Your task to perform on an android device: Search for sushi restaurants on Maps Image 0: 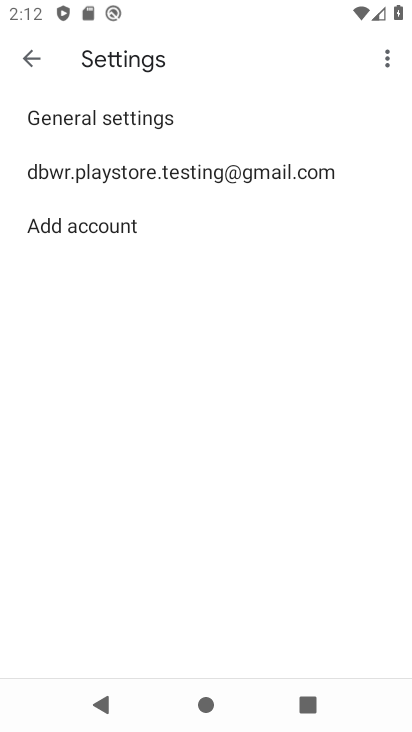
Step 0: press home button
Your task to perform on an android device: Search for sushi restaurants on Maps Image 1: 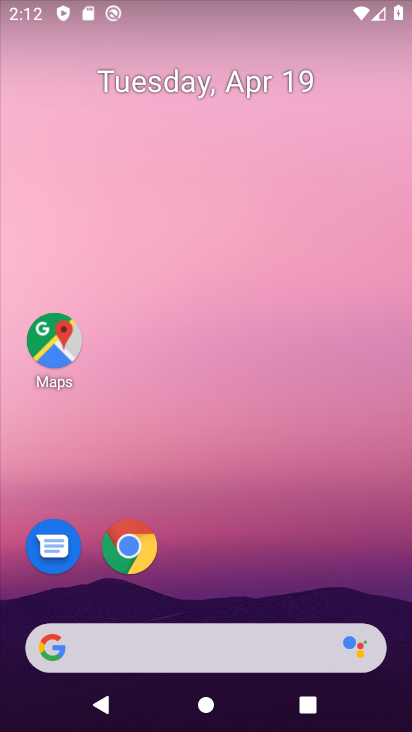
Step 1: click (51, 352)
Your task to perform on an android device: Search for sushi restaurants on Maps Image 2: 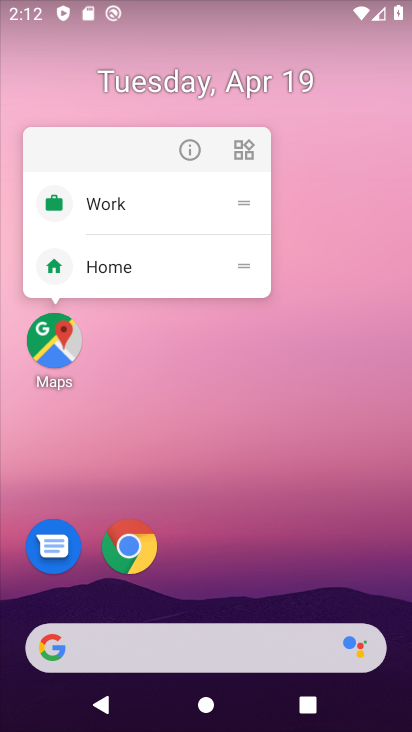
Step 2: click (66, 335)
Your task to perform on an android device: Search for sushi restaurants on Maps Image 3: 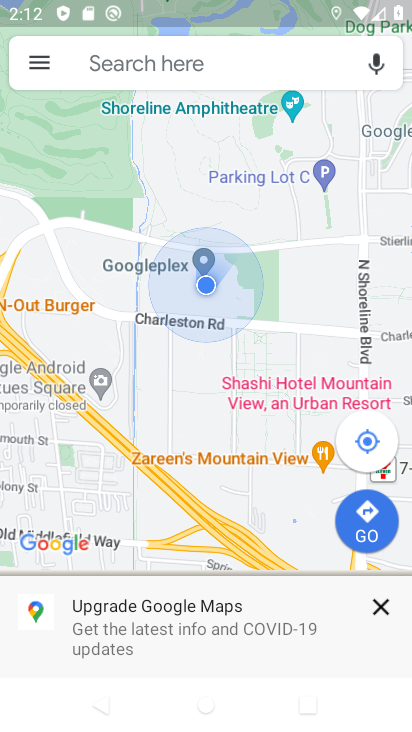
Step 3: click (161, 62)
Your task to perform on an android device: Search for sushi restaurants on Maps Image 4: 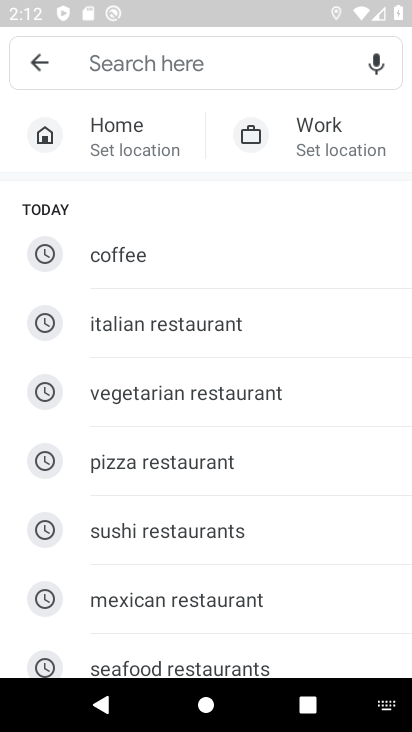
Step 4: click (162, 538)
Your task to perform on an android device: Search for sushi restaurants on Maps Image 5: 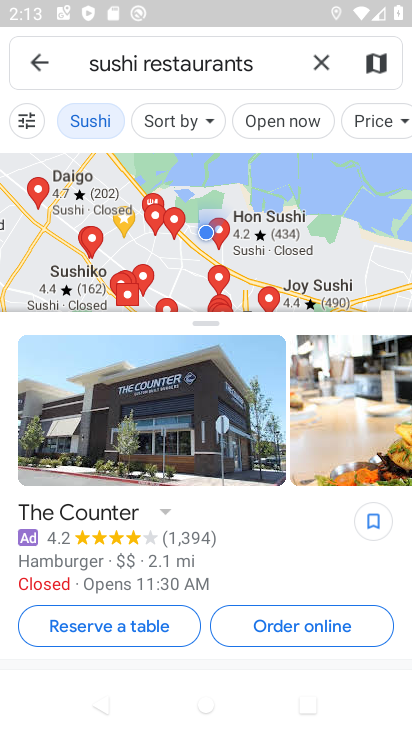
Step 5: task complete